Your task to perform on an android device: Open settings Image 0: 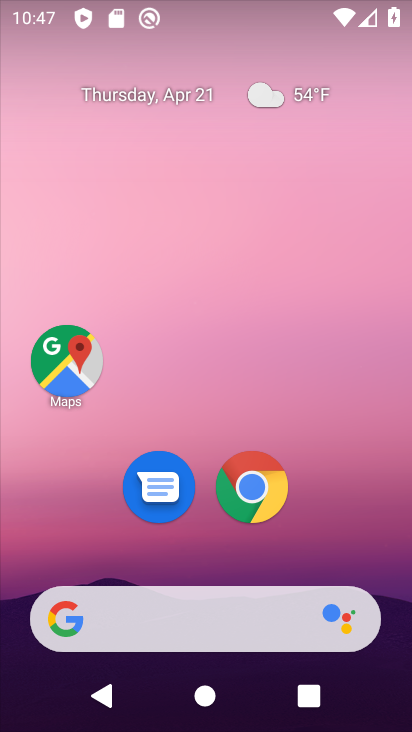
Step 0: drag from (357, 546) to (364, 195)
Your task to perform on an android device: Open settings Image 1: 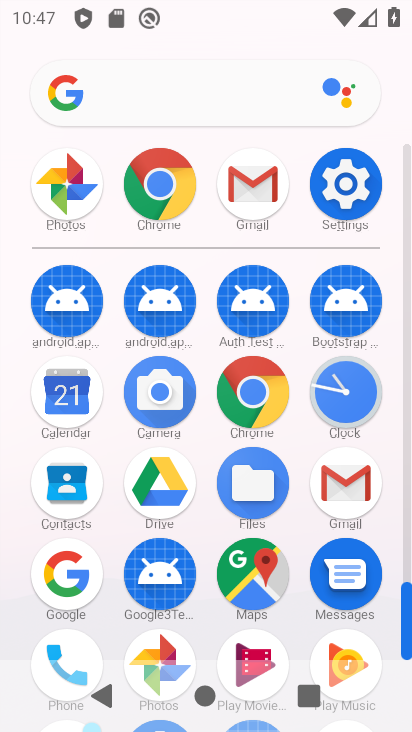
Step 1: click (361, 196)
Your task to perform on an android device: Open settings Image 2: 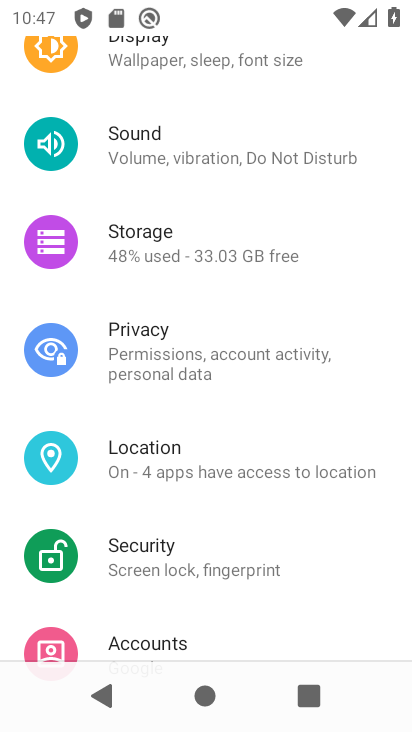
Step 2: task complete